Your task to perform on an android device: set an alarm Image 0: 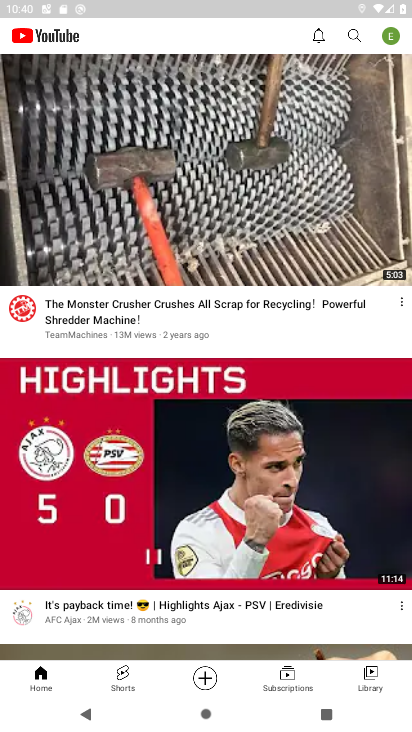
Step 0: press home button
Your task to perform on an android device: set an alarm Image 1: 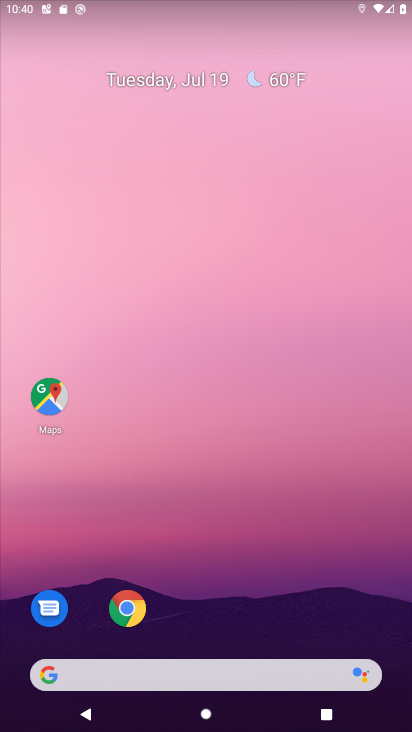
Step 1: drag from (252, 640) to (190, 76)
Your task to perform on an android device: set an alarm Image 2: 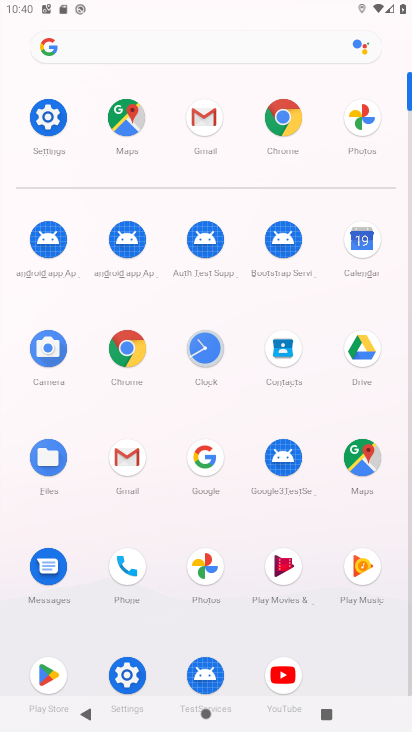
Step 2: click (209, 354)
Your task to perform on an android device: set an alarm Image 3: 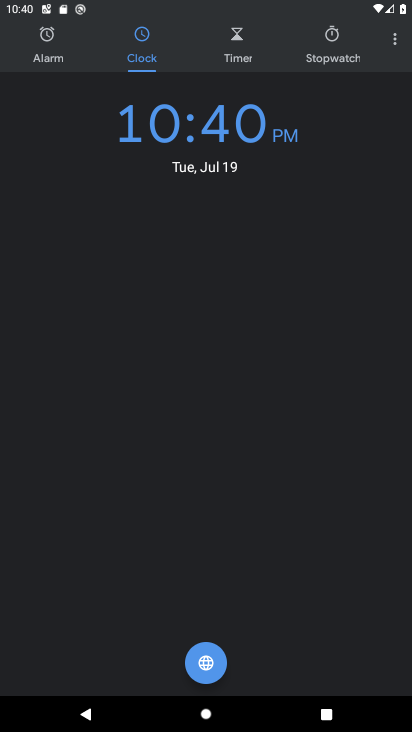
Step 3: click (44, 35)
Your task to perform on an android device: set an alarm Image 4: 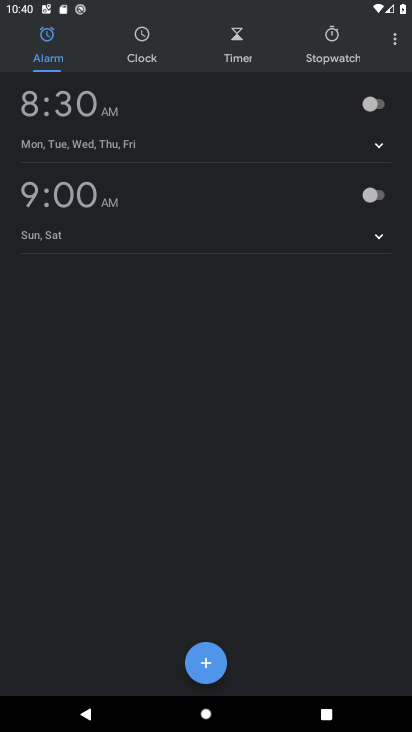
Step 4: click (201, 632)
Your task to perform on an android device: set an alarm Image 5: 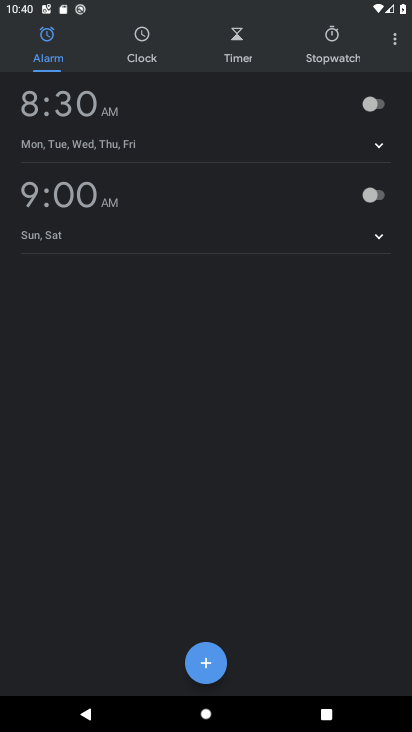
Step 5: click (204, 674)
Your task to perform on an android device: set an alarm Image 6: 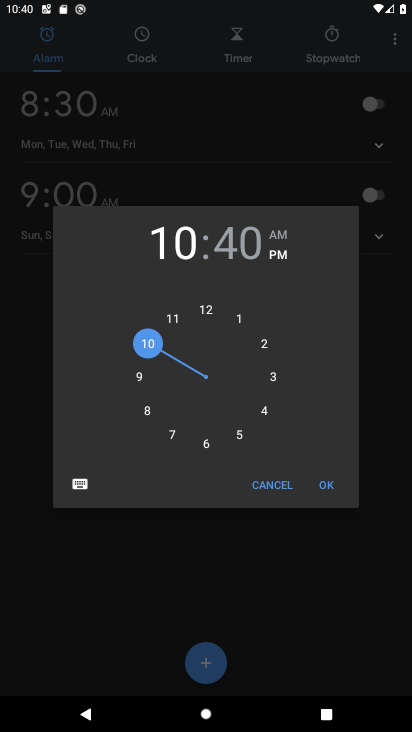
Step 6: click (325, 490)
Your task to perform on an android device: set an alarm Image 7: 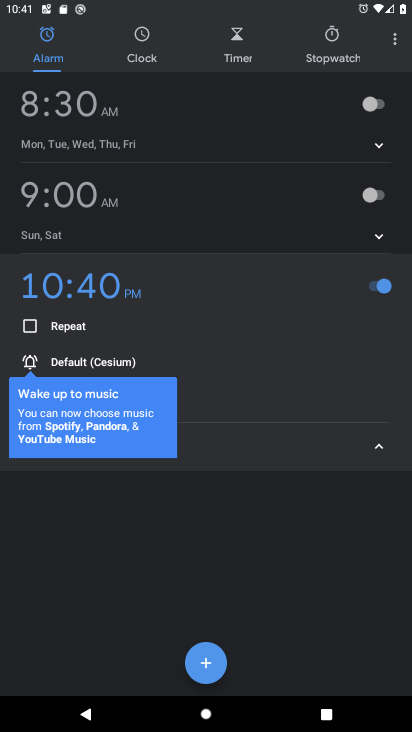
Step 7: task complete